Your task to perform on an android device: Turn off the flashlight Image 0: 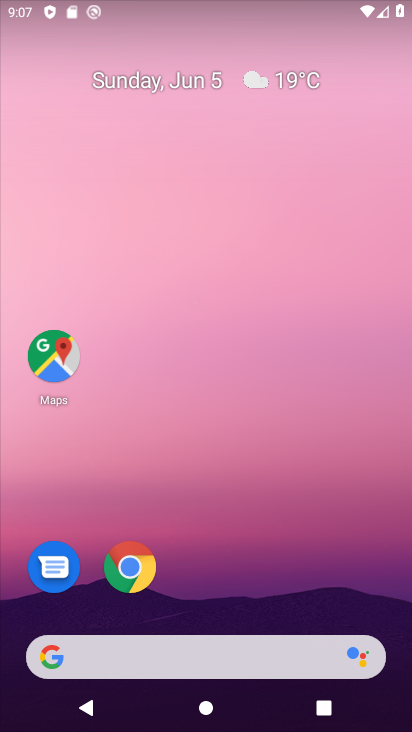
Step 0: drag from (287, 629) to (235, 41)
Your task to perform on an android device: Turn off the flashlight Image 1: 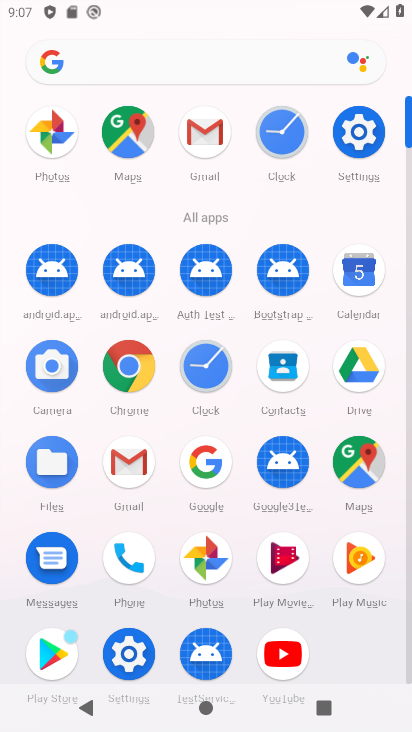
Step 1: click (365, 133)
Your task to perform on an android device: Turn off the flashlight Image 2: 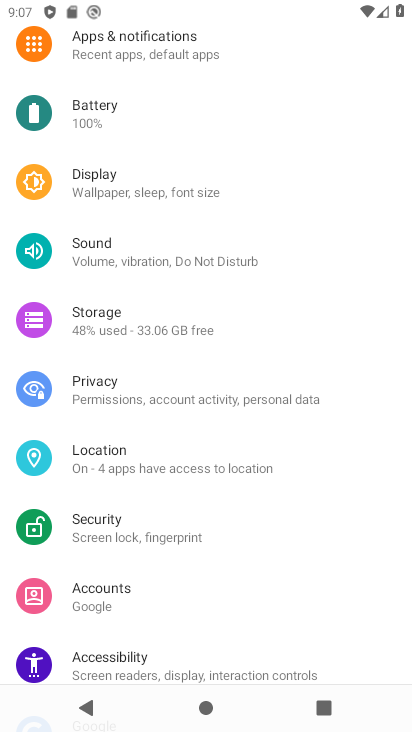
Step 2: click (120, 192)
Your task to perform on an android device: Turn off the flashlight Image 3: 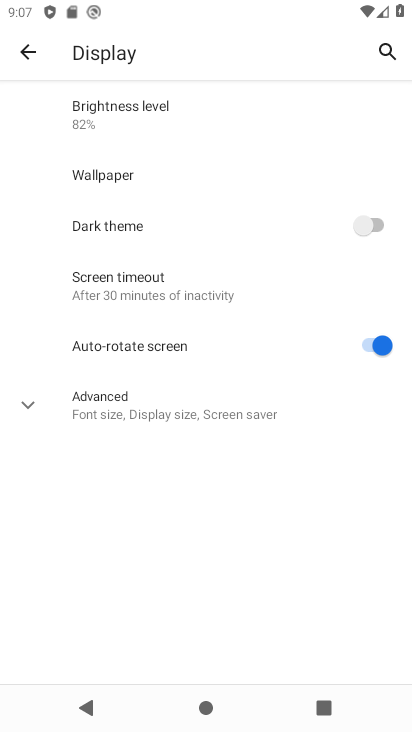
Step 3: task complete